Your task to perform on an android device: Go to ESPN.com Image 0: 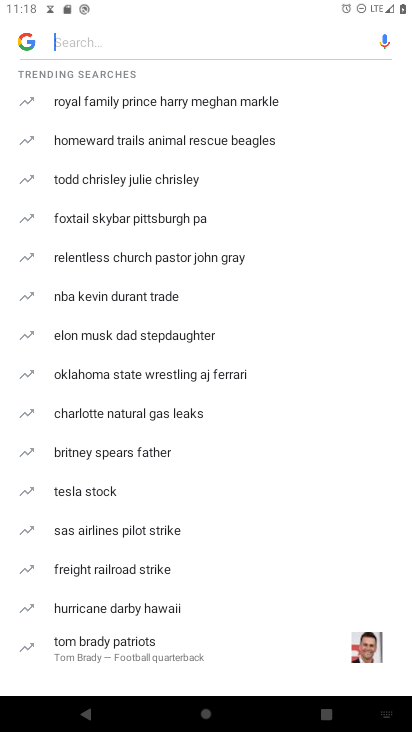
Step 0: press home button
Your task to perform on an android device: Go to ESPN.com Image 1: 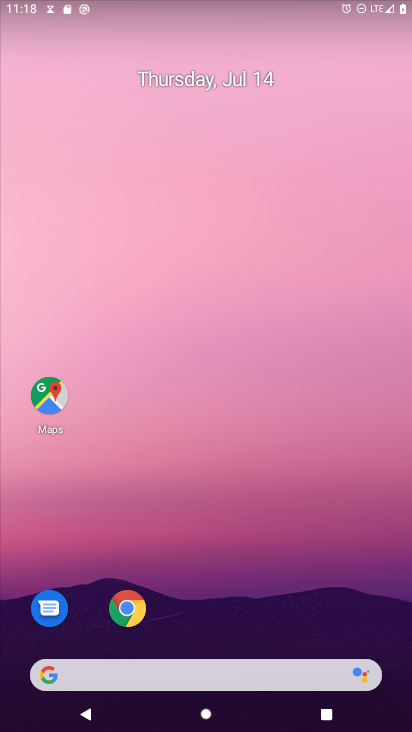
Step 1: click (145, 624)
Your task to perform on an android device: Go to ESPN.com Image 2: 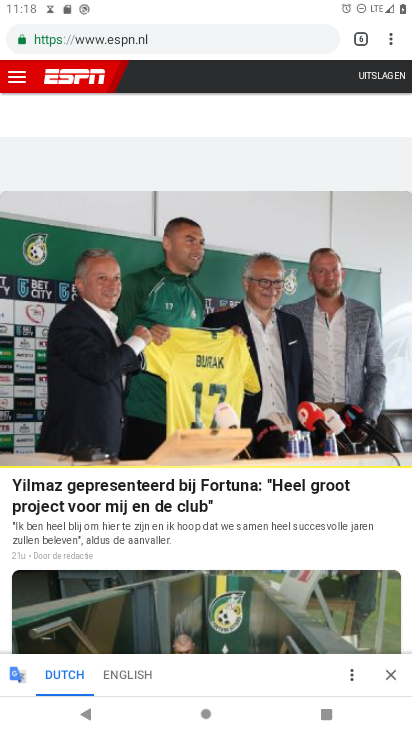
Step 2: task complete